Your task to perform on an android device: read, delete, or share a saved page in the chrome app Image 0: 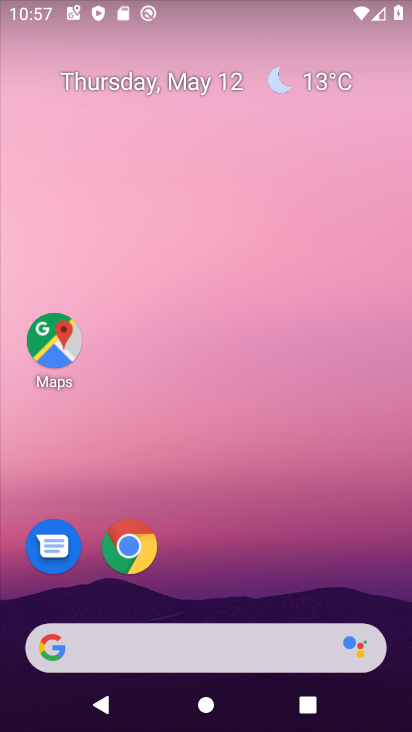
Step 0: drag from (311, 682) to (108, 70)
Your task to perform on an android device: read, delete, or share a saved page in the chrome app Image 1: 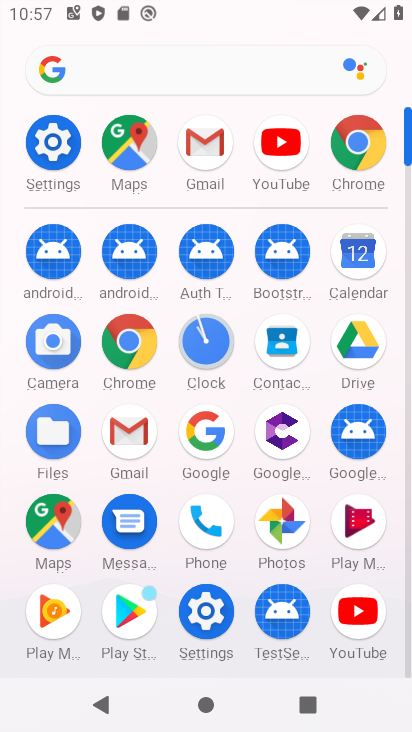
Step 1: click (350, 150)
Your task to perform on an android device: read, delete, or share a saved page in the chrome app Image 2: 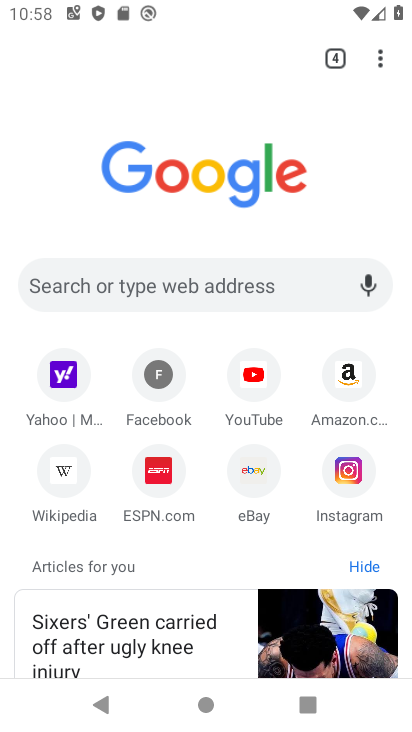
Step 2: click (374, 69)
Your task to perform on an android device: read, delete, or share a saved page in the chrome app Image 3: 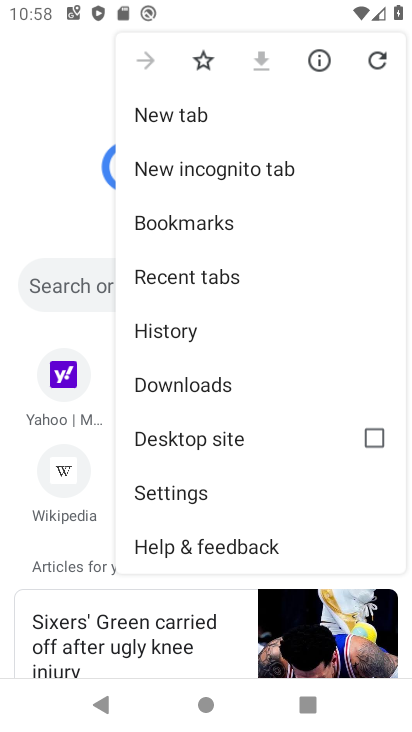
Step 3: click (176, 485)
Your task to perform on an android device: read, delete, or share a saved page in the chrome app Image 4: 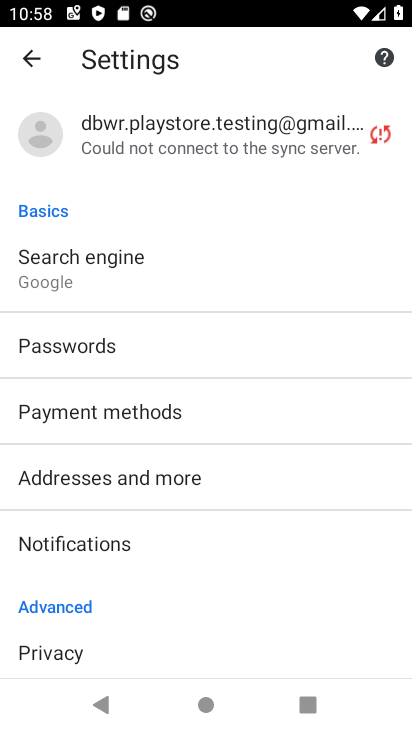
Step 4: click (88, 649)
Your task to perform on an android device: read, delete, or share a saved page in the chrome app Image 5: 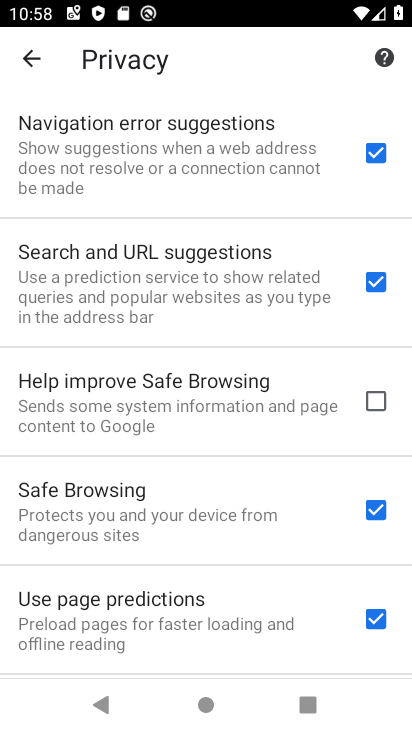
Step 5: drag from (225, 548) to (161, 291)
Your task to perform on an android device: read, delete, or share a saved page in the chrome app Image 6: 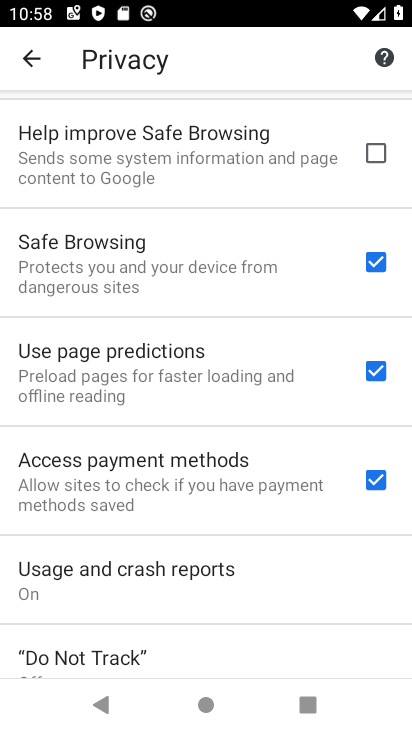
Step 6: drag from (218, 583) to (162, 300)
Your task to perform on an android device: read, delete, or share a saved page in the chrome app Image 7: 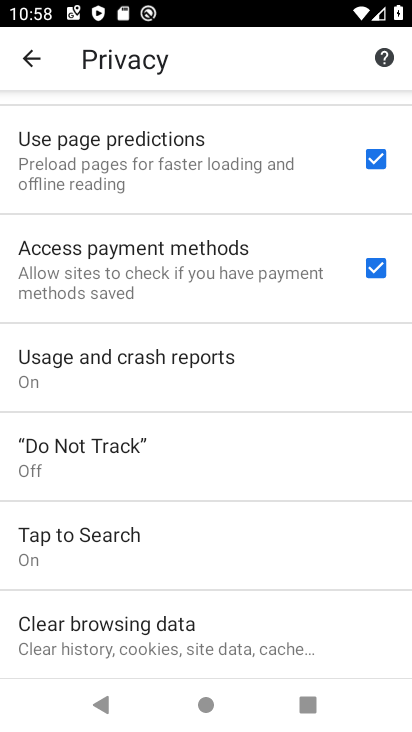
Step 7: click (153, 618)
Your task to perform on an android device: read, delete, or share a saved page in the chrome app Image 8: 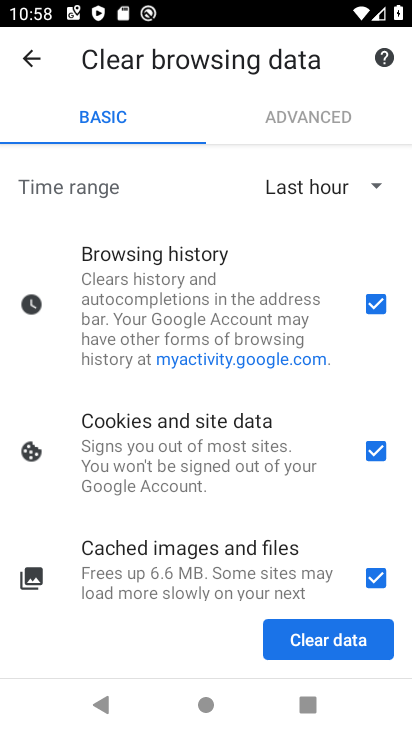
Step 8: click (315, 650)
Your task to perform on an android device: read, delete, or share a saved page in the chrome app Image 9: 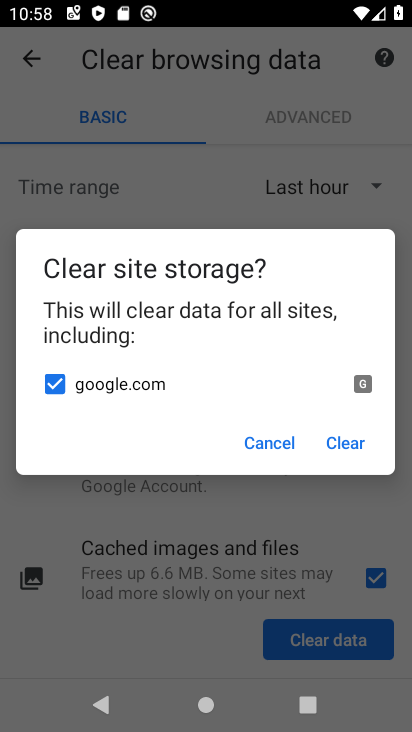
Step 9: task complete